Your task to perform on an android device: View the shopping cart on ebay.com. Image 0: 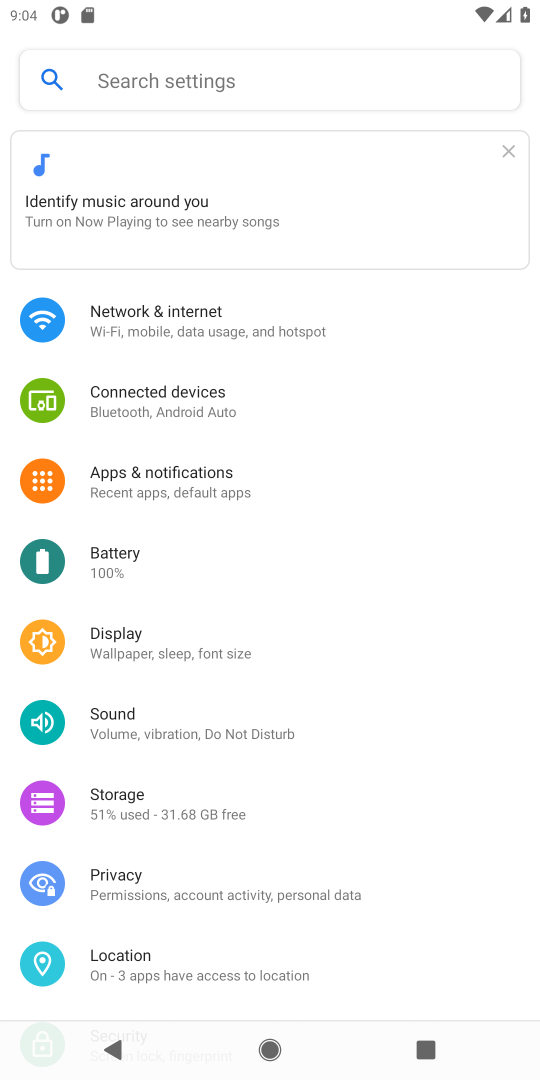
Step 0: press home button
Your task to perform on an android device: View the shopping cart on ebay.com. Image 1: 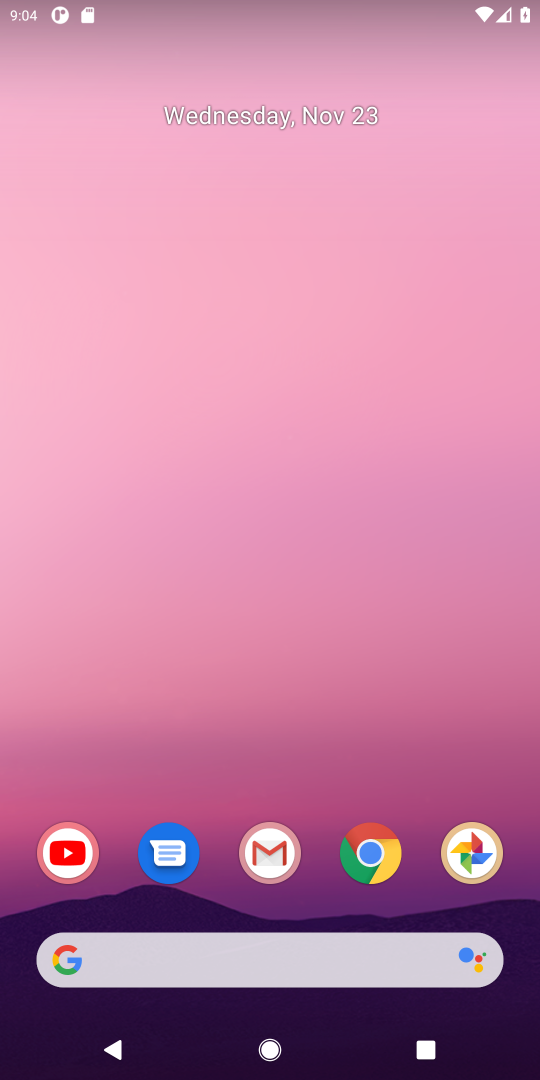
Step 1: click (371, 862)
Your task to perform on an android device: View the shopping cart on ebay.com. Image 2: 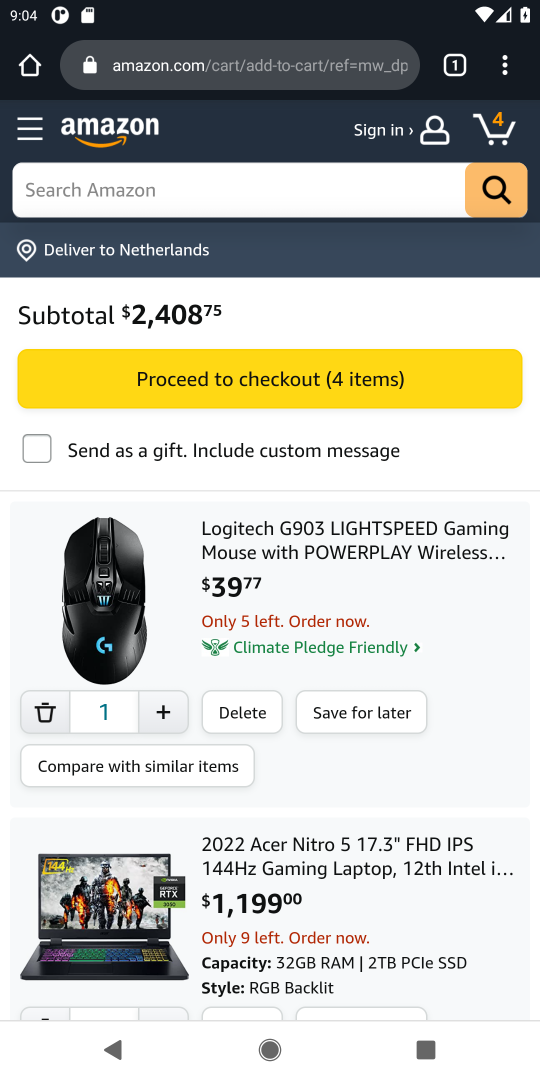
Step 2: click (172, 72)
Your task to perform on an android device: View the shopping cart on ebay.com. Image 3: 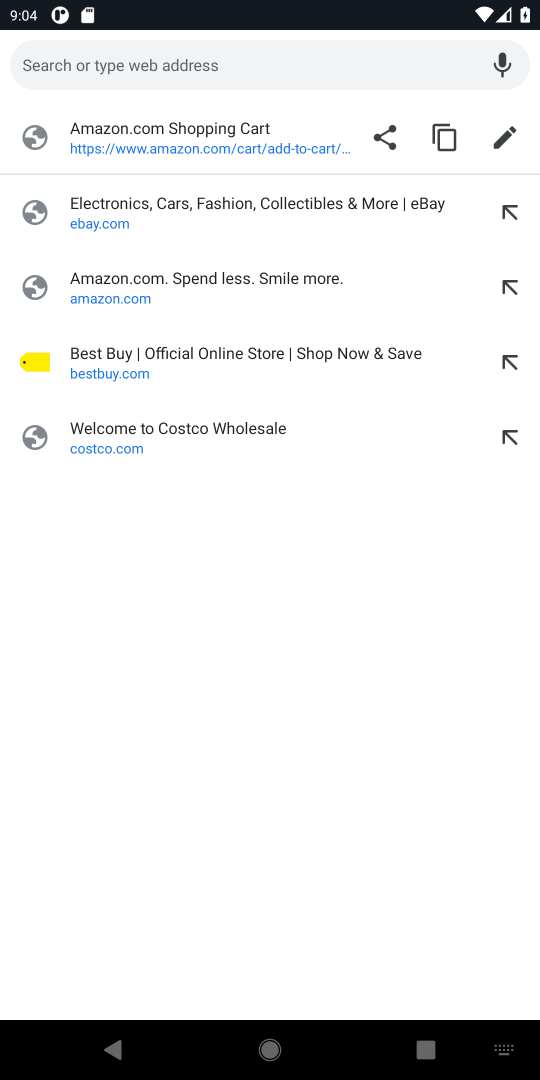
Step 3: click (77, 212)
Your task to perform on an android device: View the shopping cart on ebay.com. Image 4: 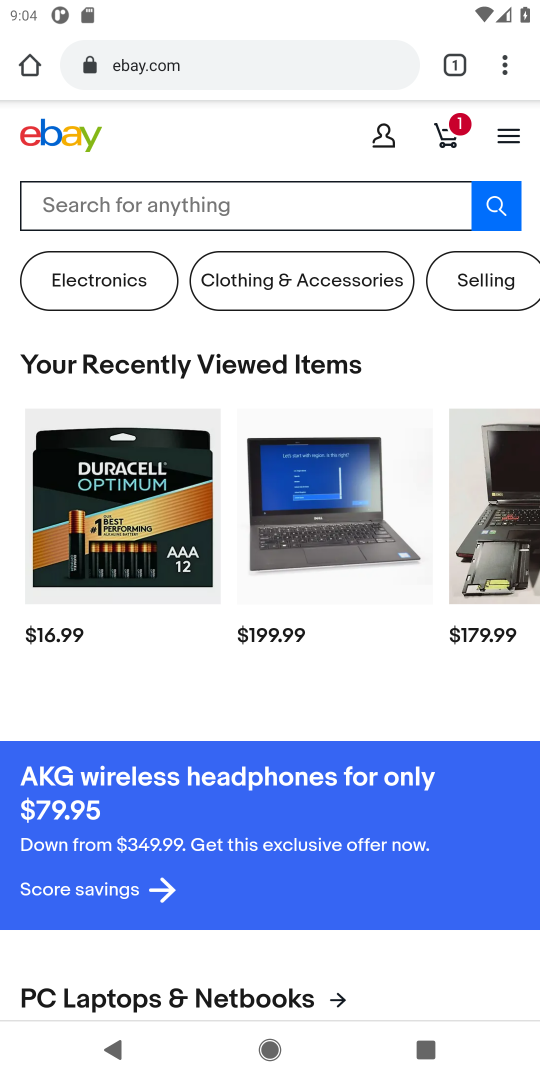
Step 4: click (444, 143)
Your task to perform on an android device: View the shopping cart on ebay.com. Image 5: 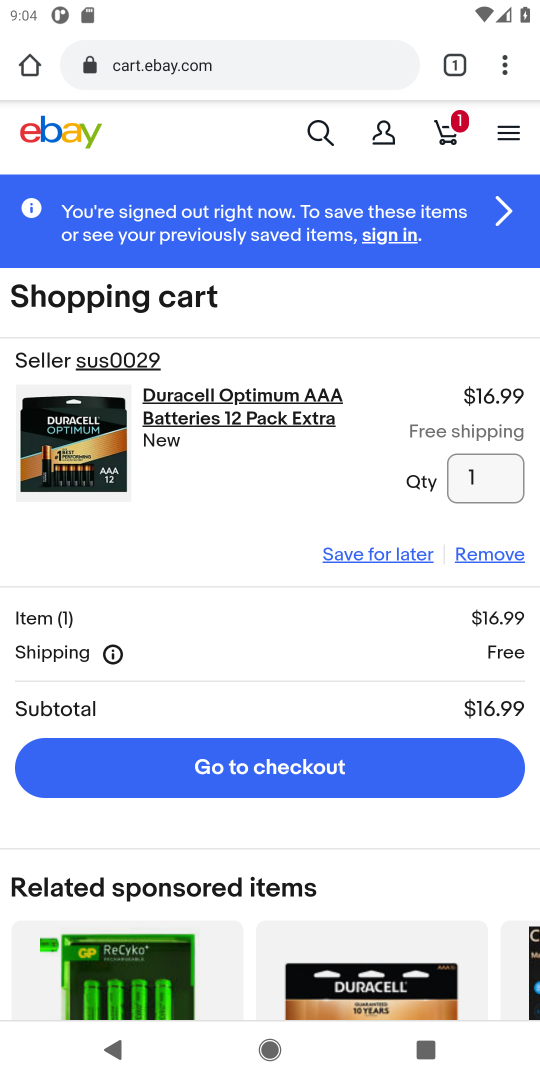
Step 5: task complete